Your task to perform on an android device: turn on javascript in the chrome app Image 0: 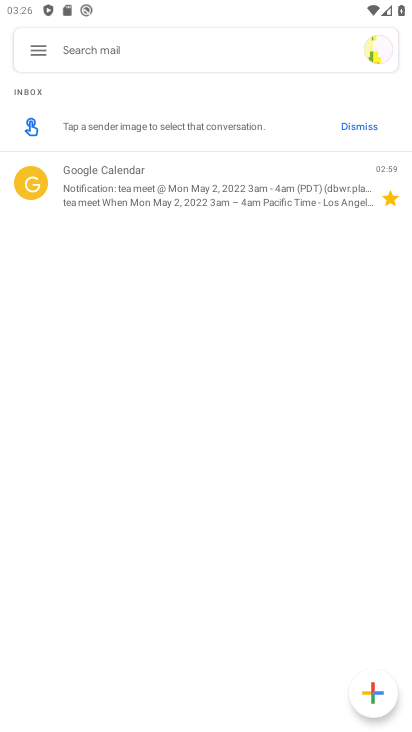
Step 0: press home button
Your task to perform on an android device: turn on javascript in the chrome app Image 1: 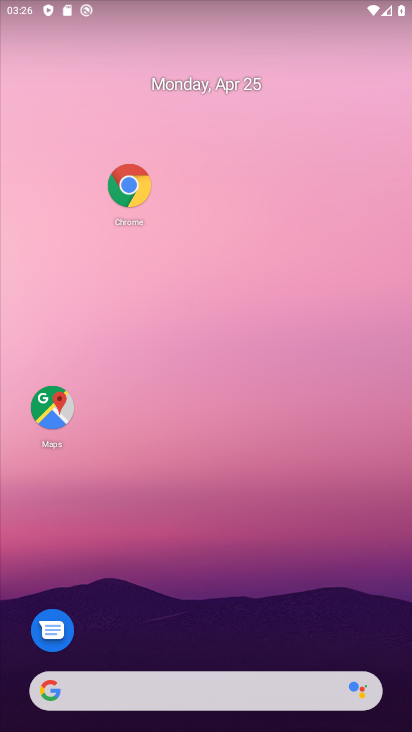
Step 1: click (130, 180)
Your task to perform on an android device: turn on javascript in the chrome app Image 2: 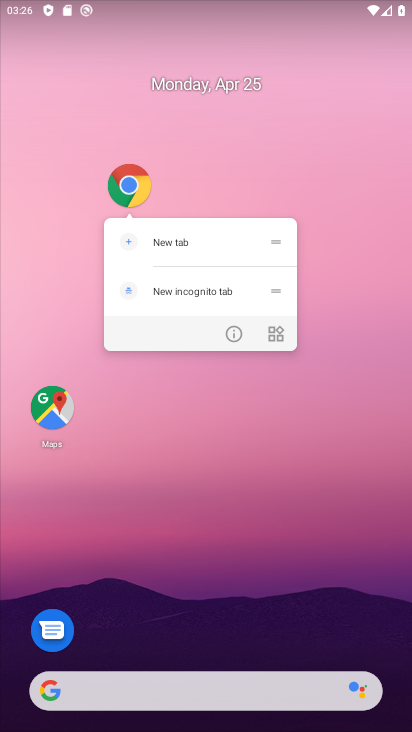
Step 2: click (230, 330)
Your task to perform on an android device: turn on javascript in the chrome app Image 3: 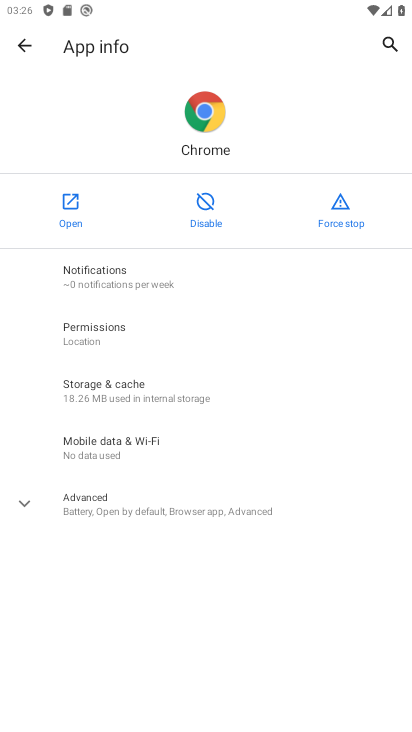
Step 3: click (77, 222)
Your task to perform on an android device: turn on javascript in the chrome app Image 4: 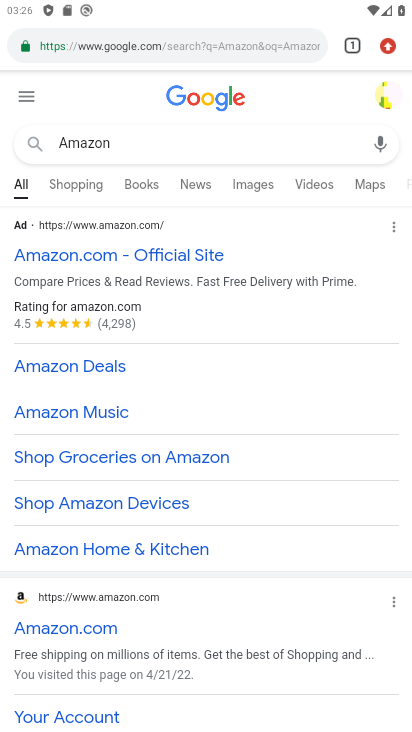
Step 4: click (385, 45)
Your task to perform on an android device: turn on javascript in the chrome app Image 5: 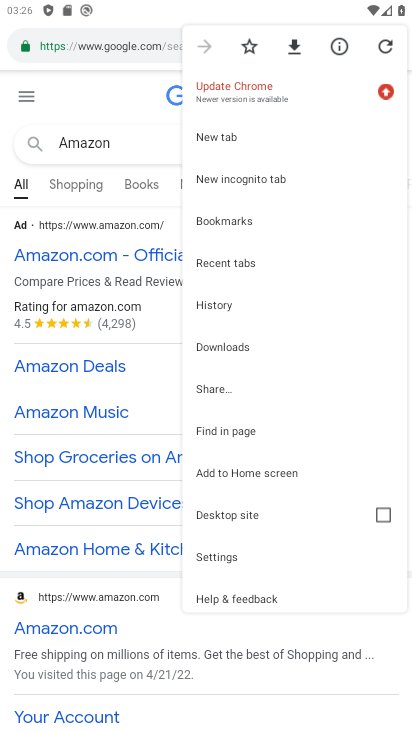
Step 5: click (229, 559)
Your task to perform on an android device: turn on javascript in the chrome app Image 6: 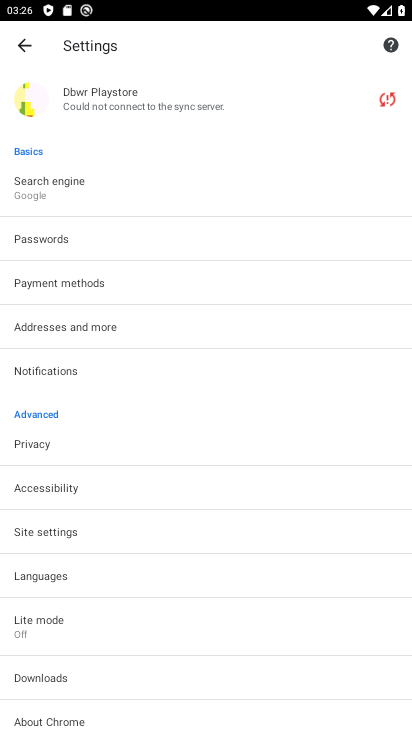
Step 6: click (74, 525)
Your task to perform on an android device: turn on javascript in the chrome app Image 7: 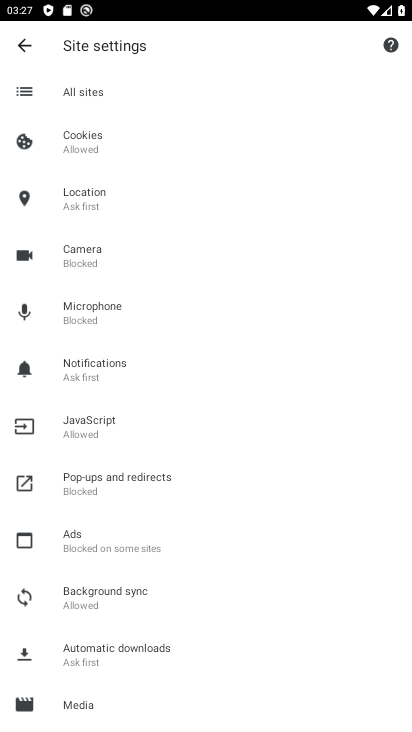
Step 7: click (123, 422)
Your task to perform on an android device: turn on javascript in the chrome app Image 8: 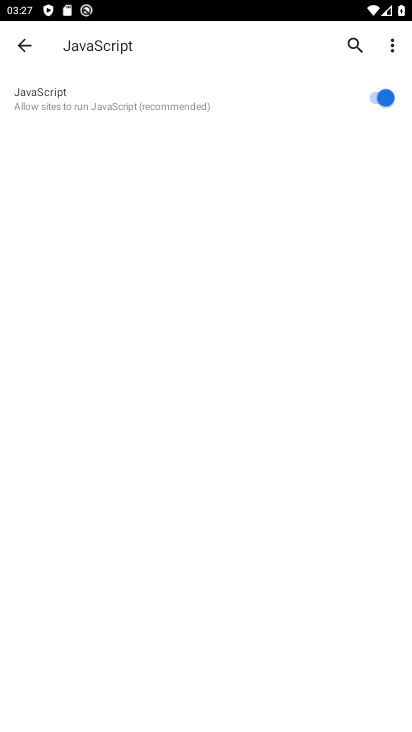
Step 8: task complete